Your task to perform on an android device: add a contact Image 0: 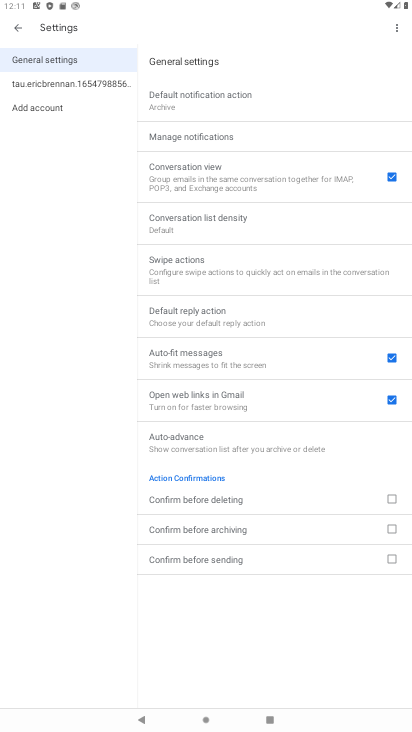
Step 0: press home button
Your task to perform on an android device: add a contact Image 1: 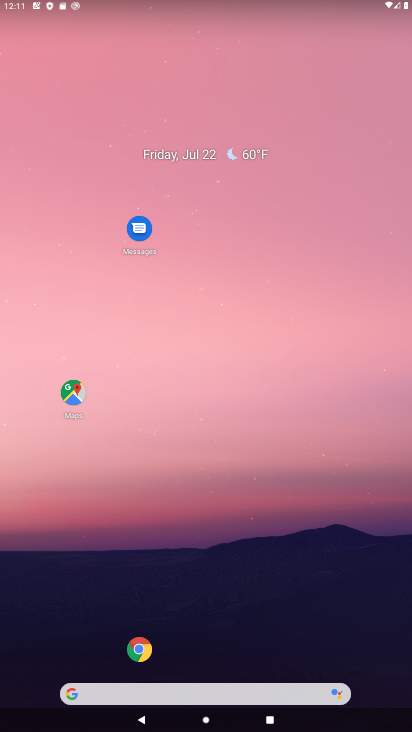
Step 1: drag from (58, 629) to (153, 109)
Your task to perform on an android device: add a contact Image 2: 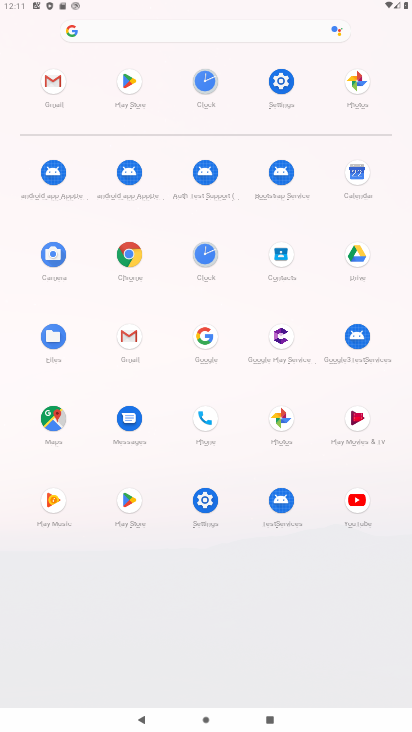
Step 2: click (284, 252)
Your task to perform on an android device: add a contact Image 3: 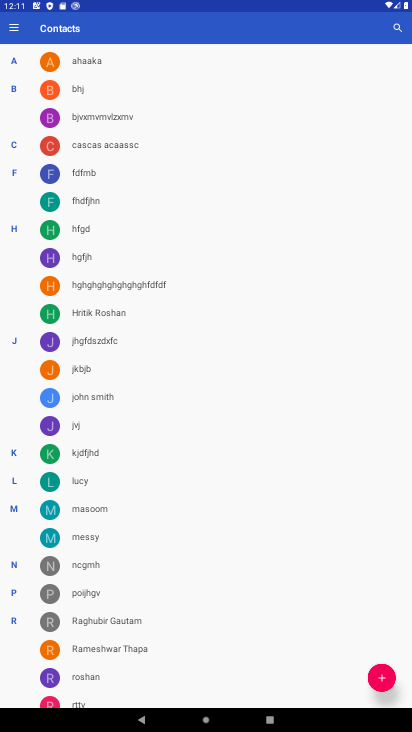
Step 3: click (375, 684)
Your task to perform on an android device: add a contact Image 4: 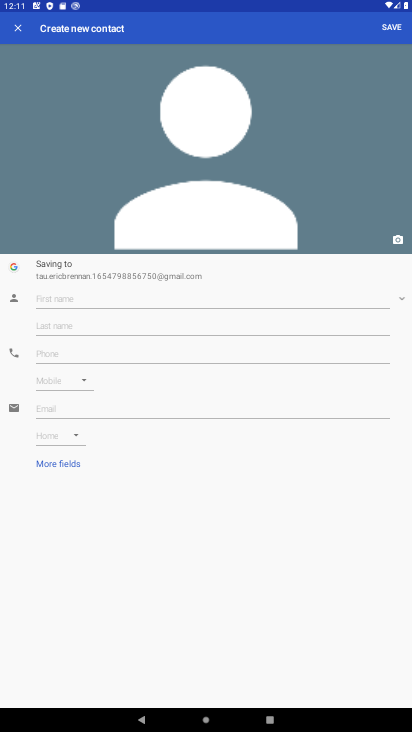
Step 4: click (66, 297)
Your task to perform on an android device: add a contact Image 5: 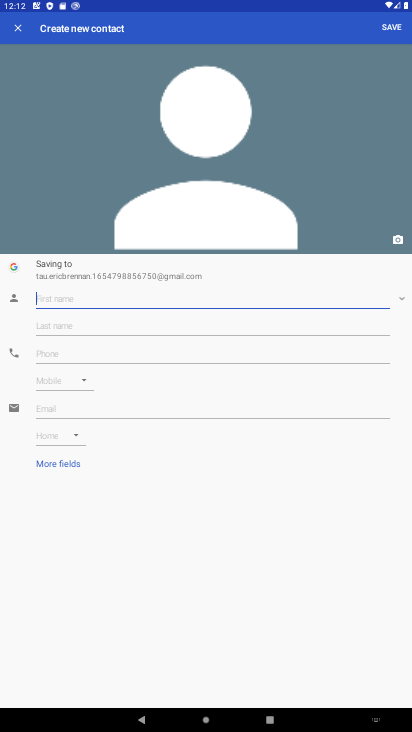
Step 5: type "dxfhdfn"
Your task to perform on an android device: add a contact Image 6: 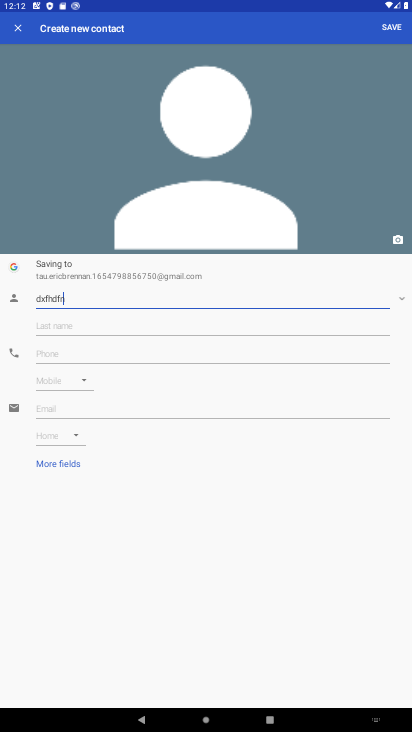
Step 6: type ""
Your task to perform on an android device: add a contact Image 7: 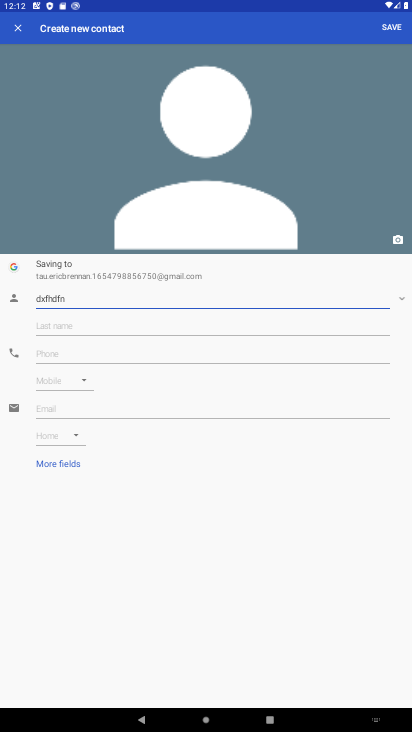
Step 7: click (386, 22)
Your task to perform on an android device: add a contact Image 8: 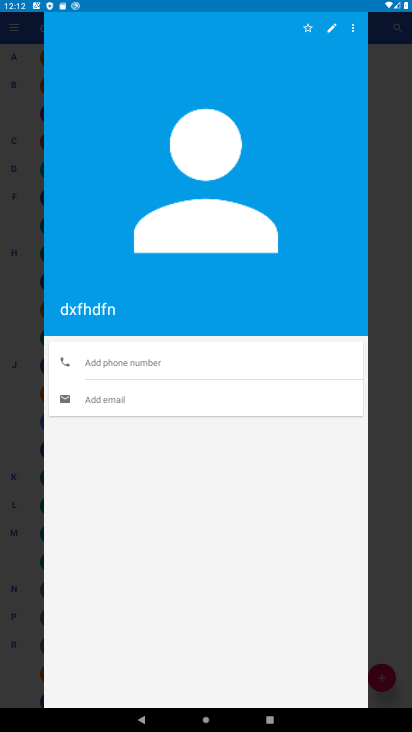
Step 8: task complete